Your task to perform on an android device: Go to Reddit.com Image 0: 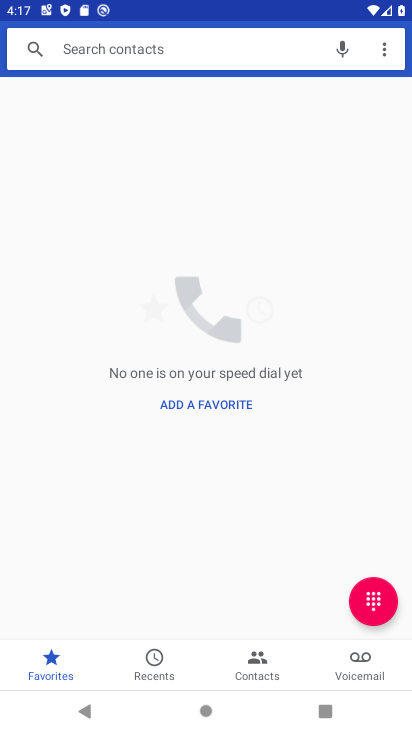
Step 0: press home button
Your task to perform on an android device: Go to Reddit.com Image 1: 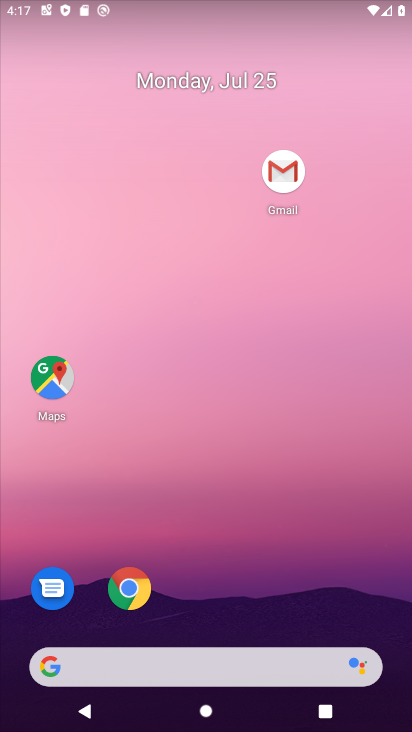
Step 1: drag from (241, 511) to (264, 50)
Your task to perform on an android device: Go to Reddit.com Image 2: 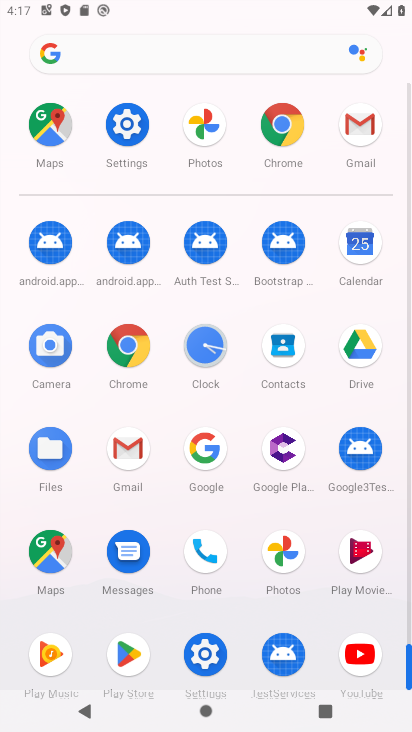
Step 2: click (274, 119)
Your task to perform on an android device: Go to Reddit.com Image 3: 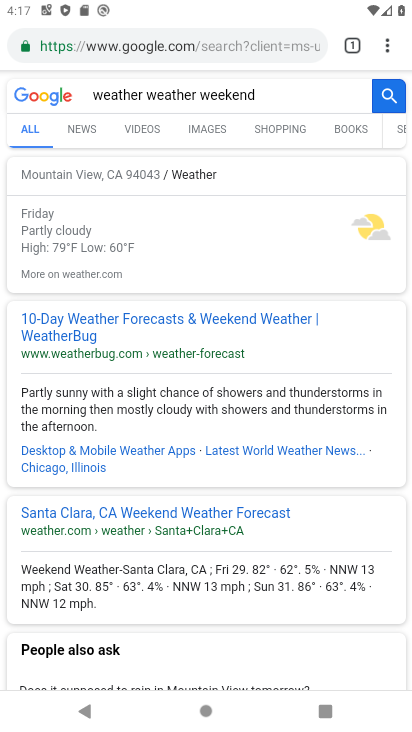
Step 3: click (242, 53)
Your task to perform on an android device: Go to Reddit.com Image 4: 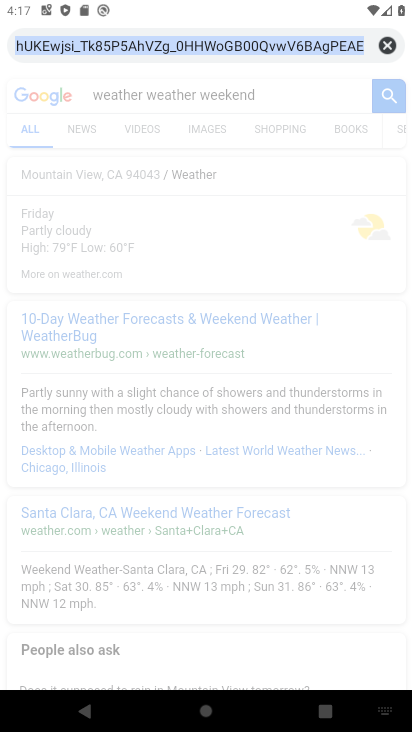
Step 4: type "reddit.com"
Your task to perform on an android device: Go to Reddit.com Image 5: 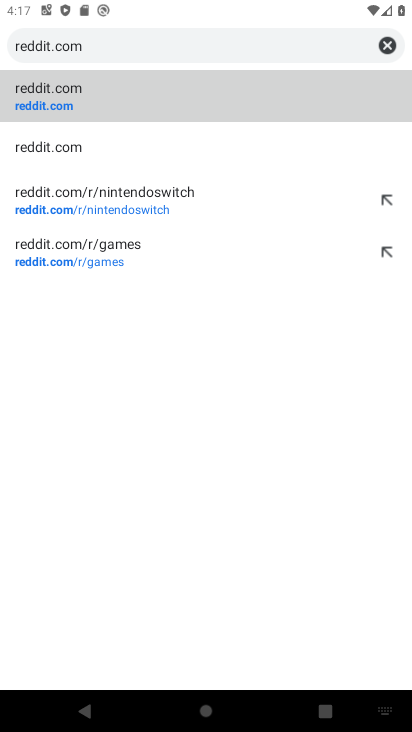
Step 5: click (47, 114)
Your task to perform on an android device: Go to Reddit.com Image 6: 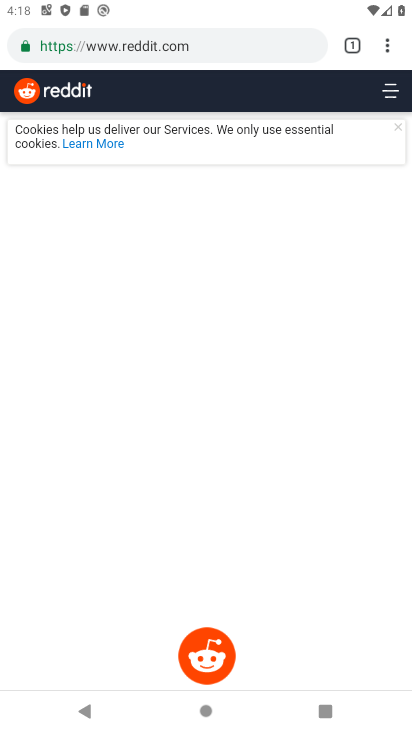
Step 6: task complete